Your task to perform on an android device: change the clock display to show seconds Image 0: 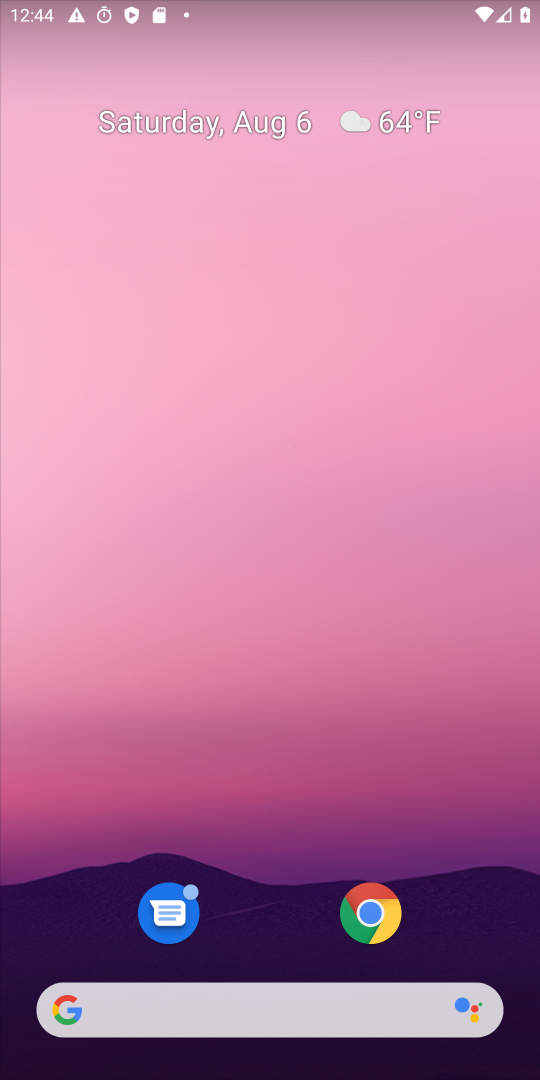
Step 0: press home button
Your task to perform on an android device: change the clock display to show seconds Image 1: 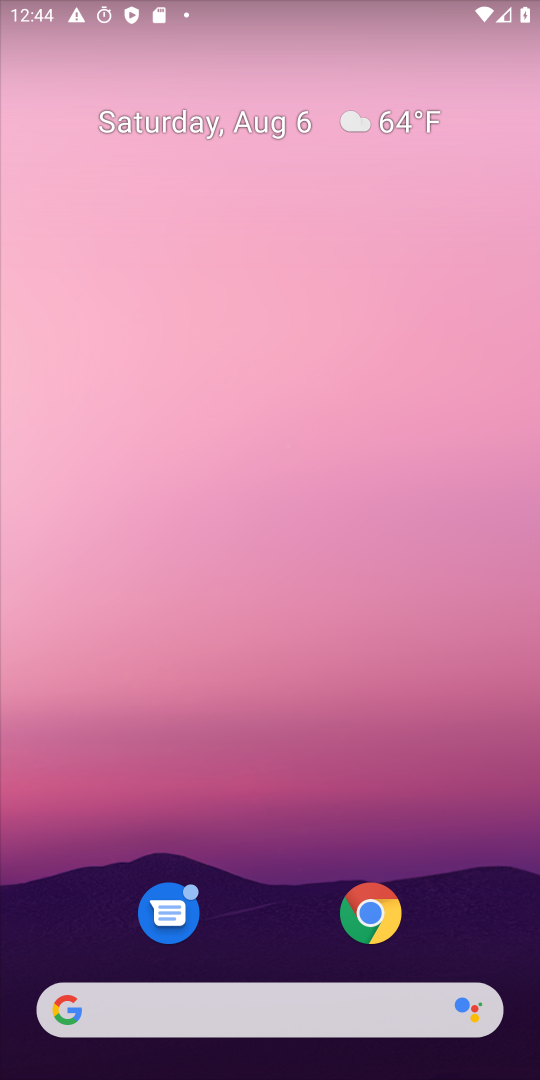
Step 1: drag from (270, 927) to (293, 333)
Your task to perform on an android device: change the clock display to show seconds Image 2: 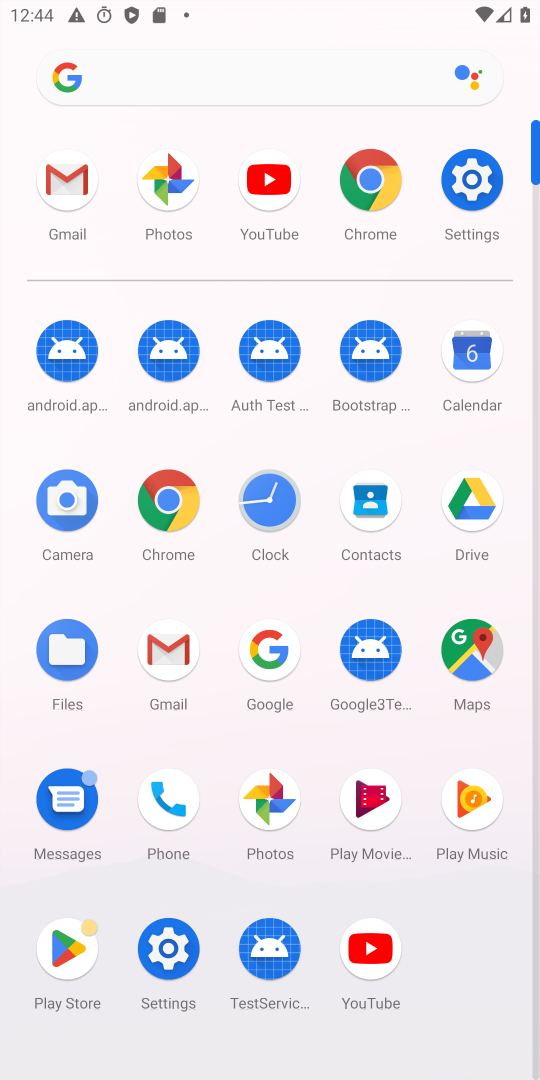
Step 2: click (257, 514)
Your task to perform on an android device: change the clock display to show seconds Image 3: 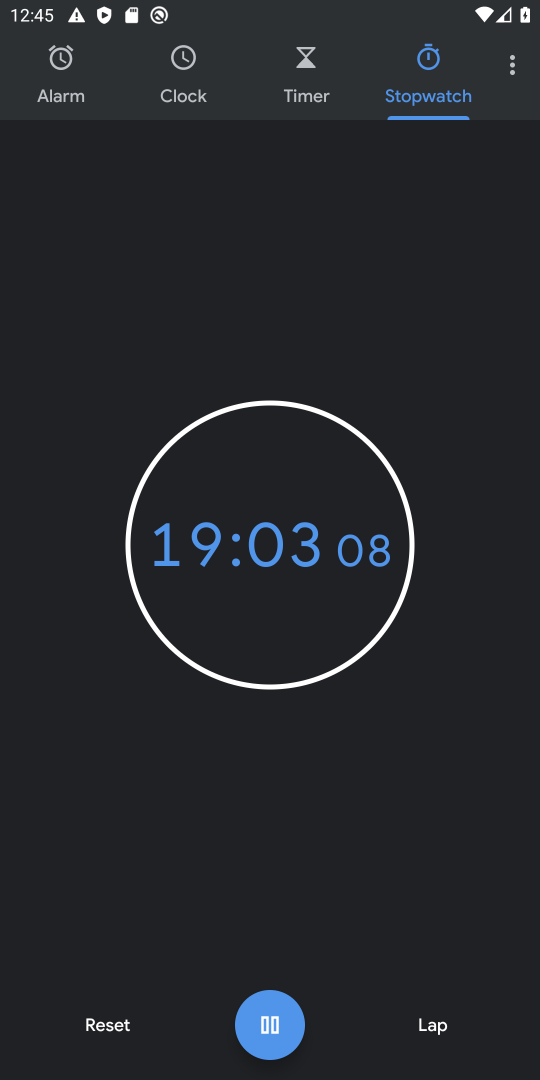
Step 3: click (510, 70)
Your task to perform on an android device: change the clock display to show seconds Image 4: 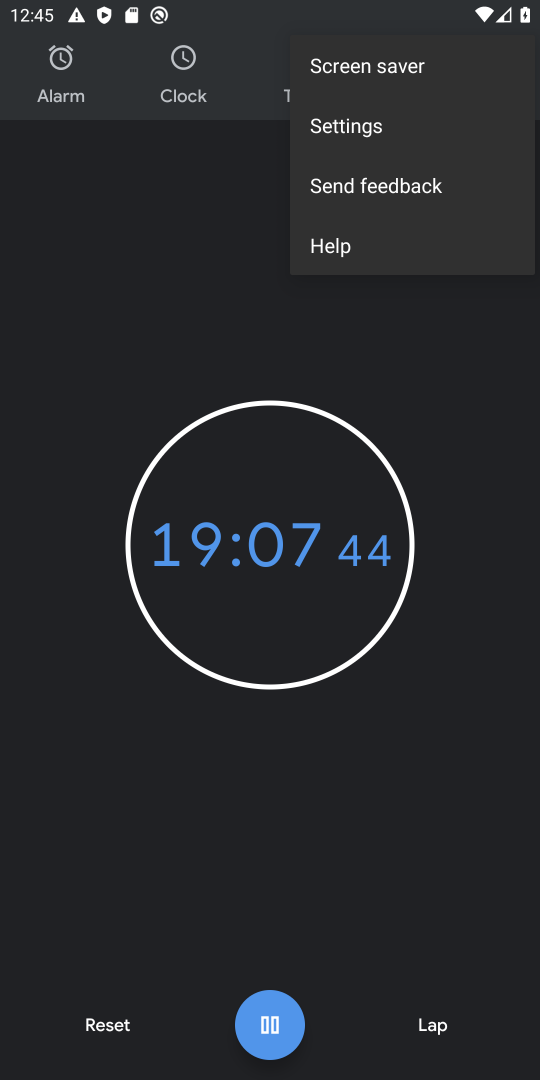
Step 4: click (422, 132)
Your task to perform on an android device: change the clock display to show seconds Image 5: 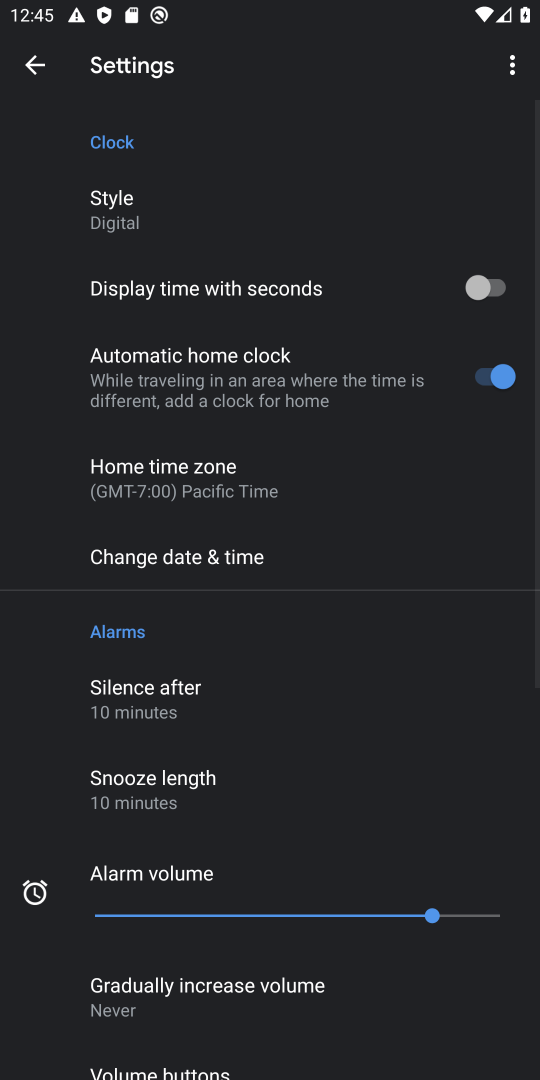
Step 5: drag from (357, 521) to (365, 374)
Your task to perform on an android device: change the clock display to show seconds Image 6: 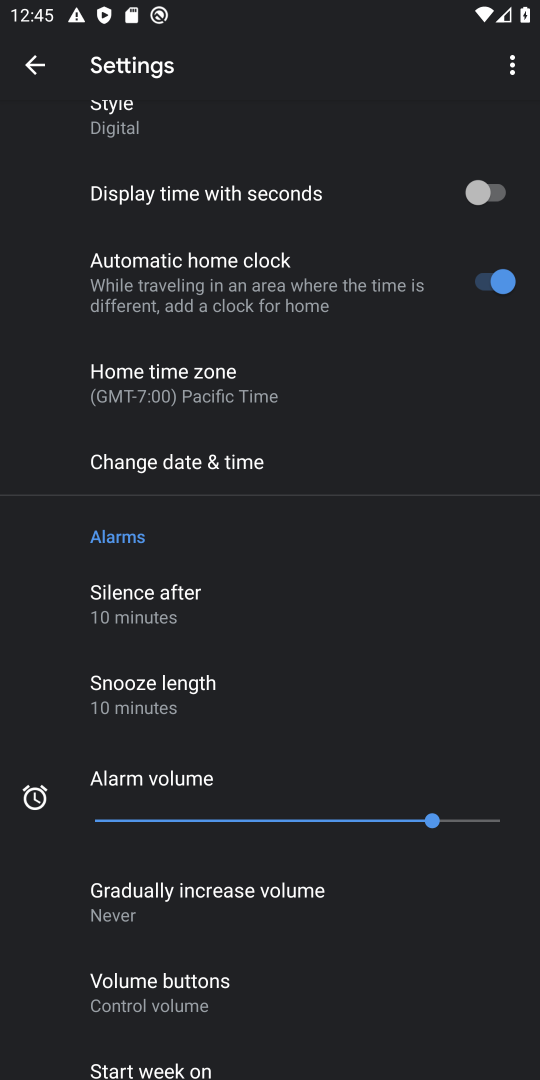
Step 6: drag from (378, 576) to (383, 383)
Your task to perform on an android device: change the clock display to show seconds Image 7: 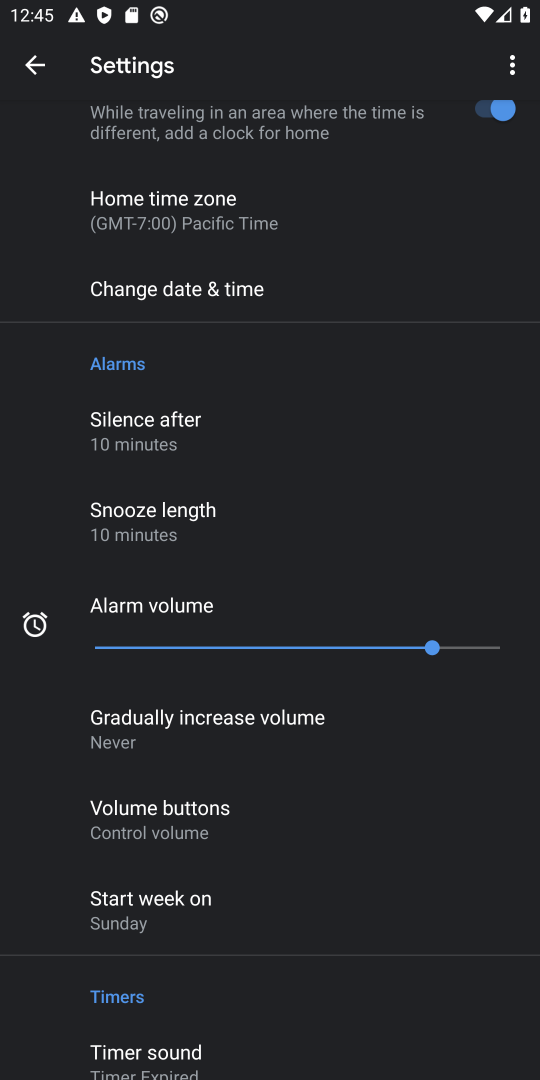
Step 7: drag from (385, 693) to (393, 425)
Your task to perform on an android device: change the clock display to show seconds Image 8: 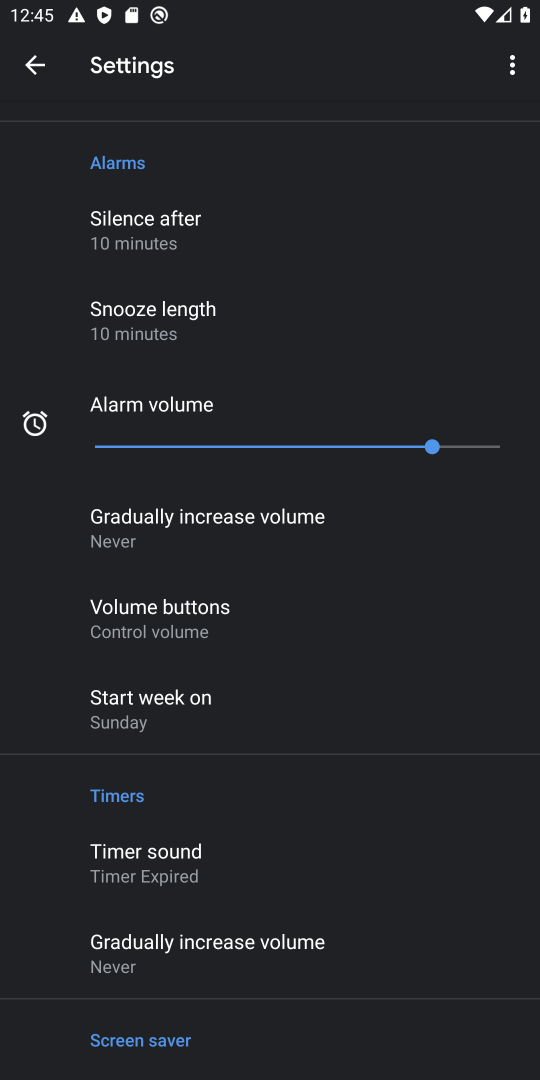
Step 8: drag from (397, 295) to (393, 469)
Your task to perform on an android device: change the clock display to show seconds Image 9: 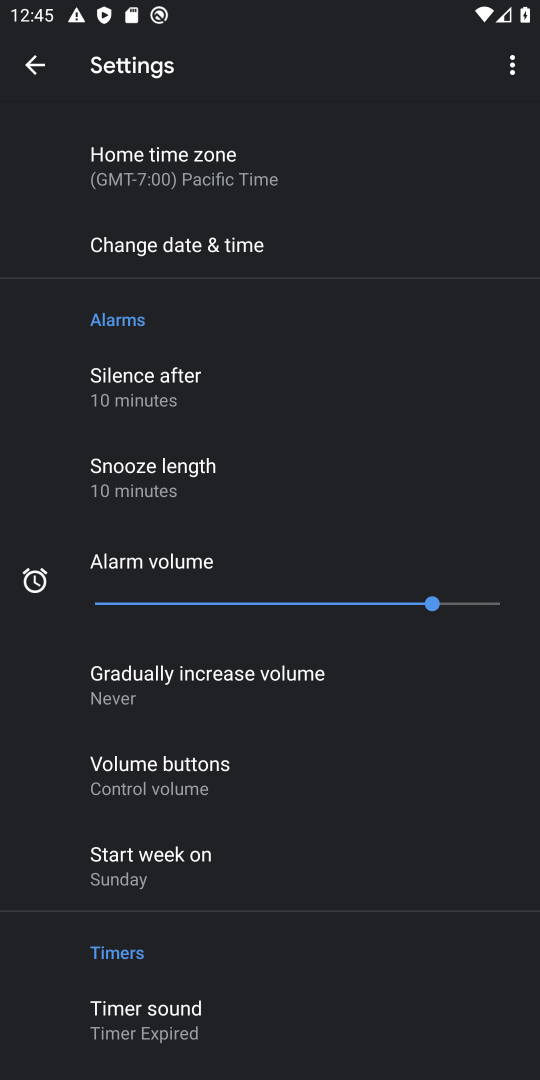
Step 9: drag from (408, 310) to (389, 458)
Your task to perform on an android device: change the clock display to show seconds Image 10: 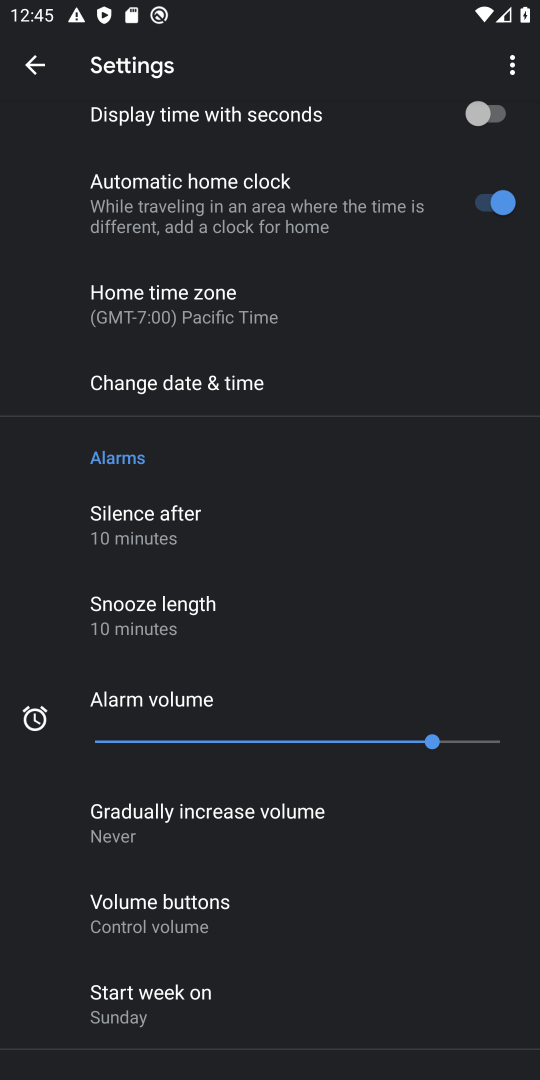
Step 10: drag from (412, 311) to (399, 499)
Your task to perform on an android device: change the clock display to show seconds Image 11: 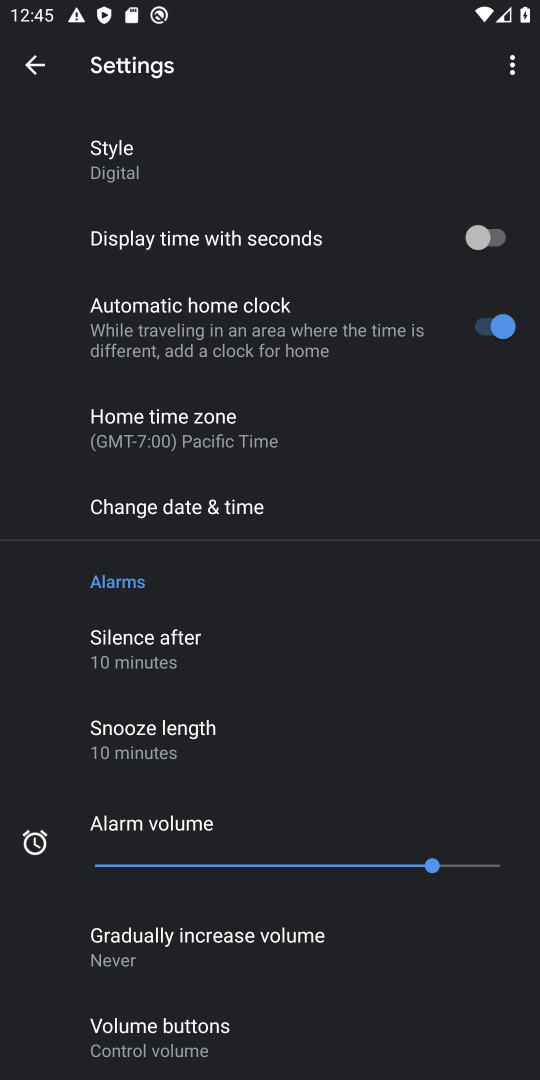
Step 11: click (482, 254)
Your task to perform on an android device: change the clock display to show seconds Image 12: 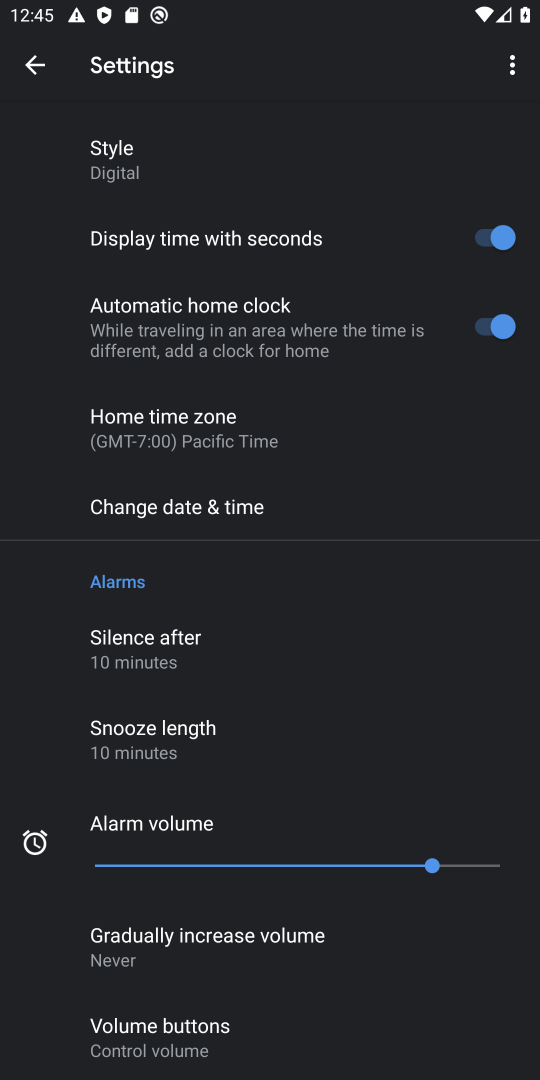
Step 12: task complete